Your task to perform on an android device: Open display settings Image 0: 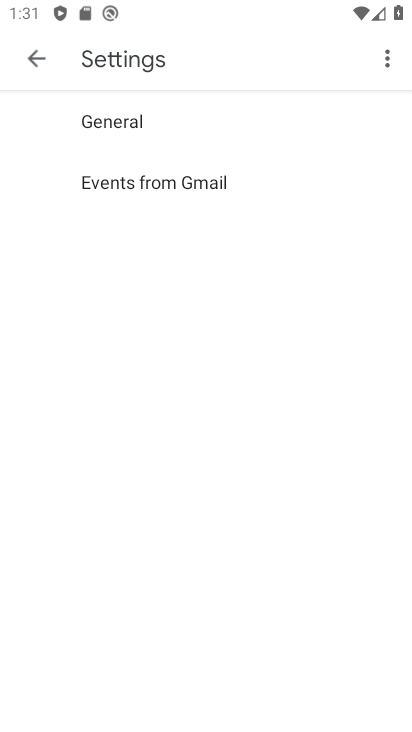
Step 0: press home button
Your task to perform on an android device: Open display settings Image 1: 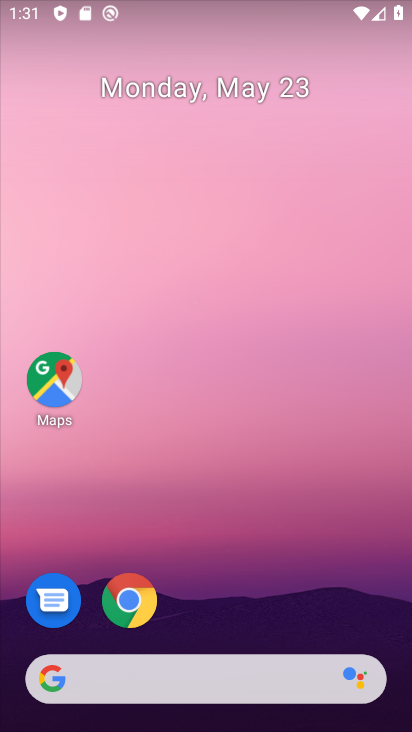
Step 1: drag from (267, 620) to (194, 46)
Your task to perform on an android device: Open display settings Image 2: 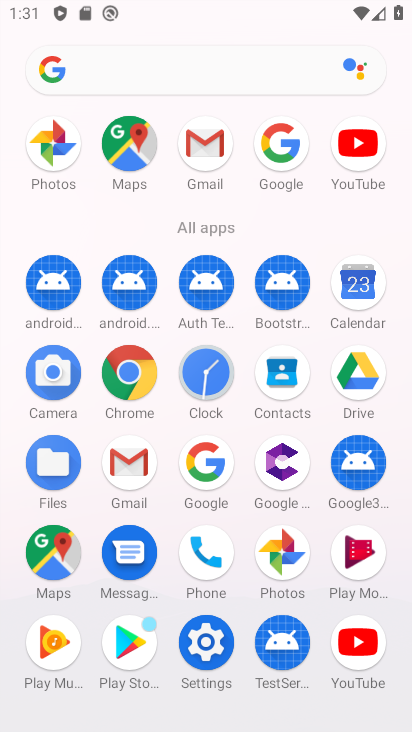
Step 2: click (200, 651)
Your task to perform on an android device: Open display settings Image 3: 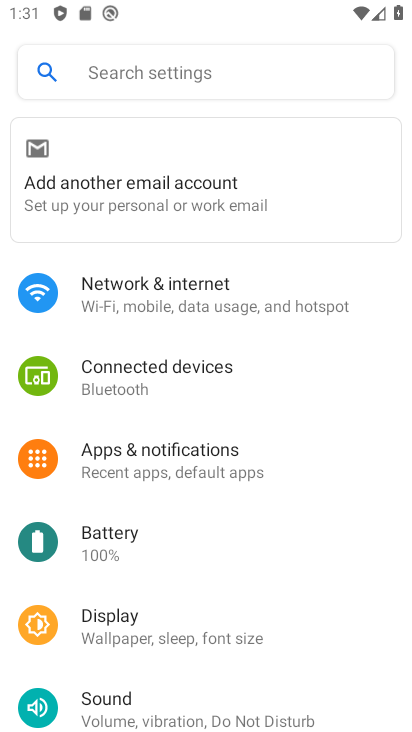
Step 3: click (251, 633)
Your task to perform on an android device: Open display settings Image 4: 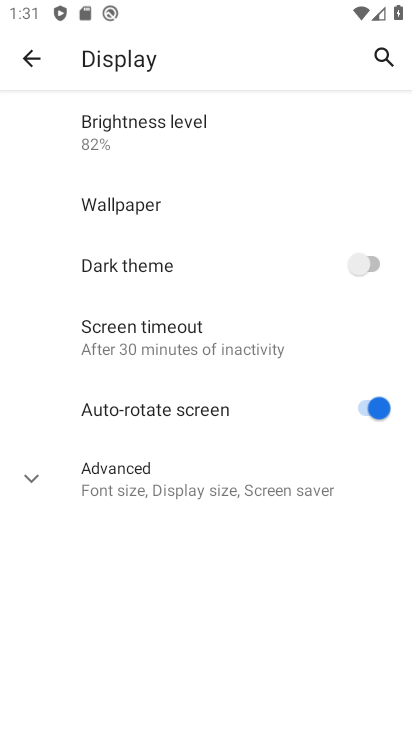
Step 4: click (277, 485)
Your task to perform on an android device: Open display settings Image 5: 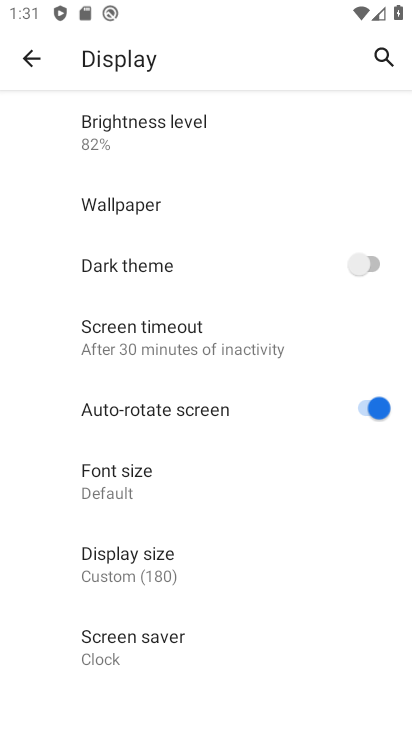
Step 5: task complete